Your task to perform on an android device: Search for hotels in San Diego Image 0: 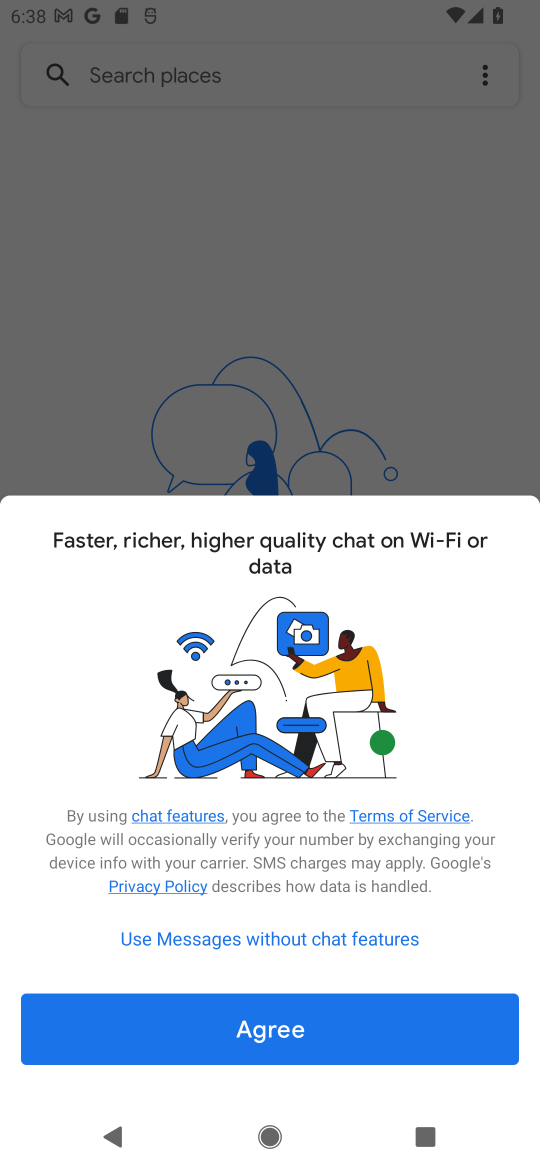
Step 0: press home button
Your task to perform on an android device: Search for hotels in San Diego Image 1: 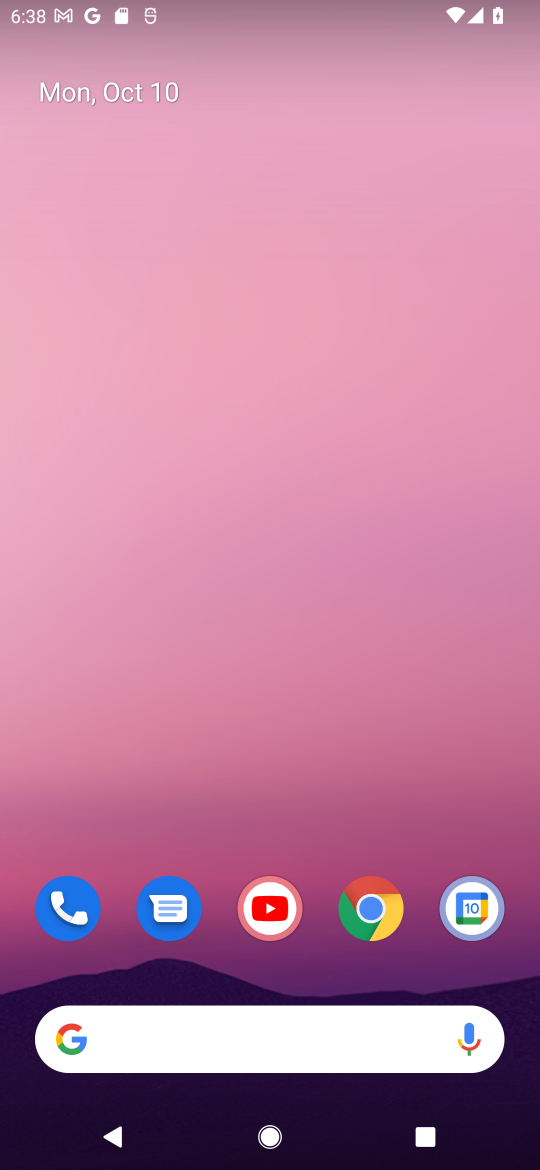
Step 1: drag from (333, 966) to (338, 178)
Your task to perform on an android device: Search for hotels in San Diego Image 2: 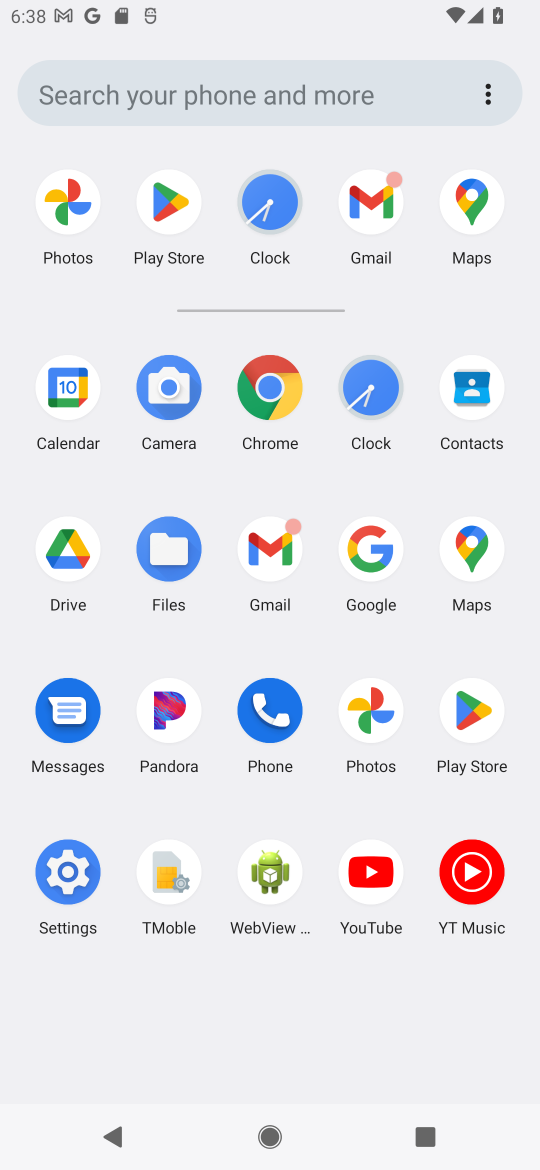
Step 2: click (269, 387)
Your task to perform on an android device: Search for hotels in San Diego Image 3: 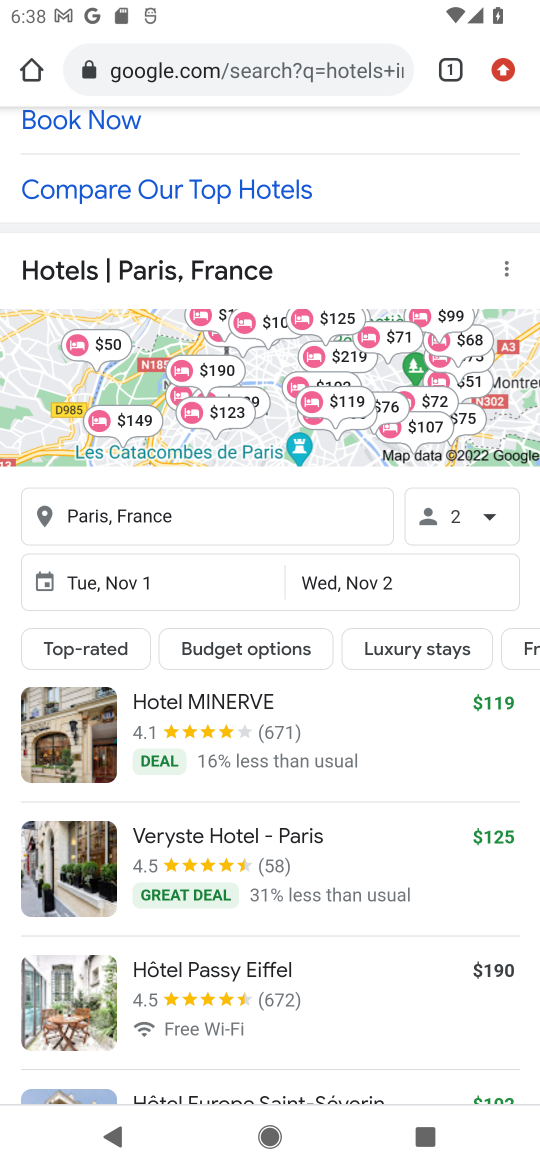
Step 3: click (238, 75)
Your task to perform on an android device: Search for hotels in San Diego Image 4: 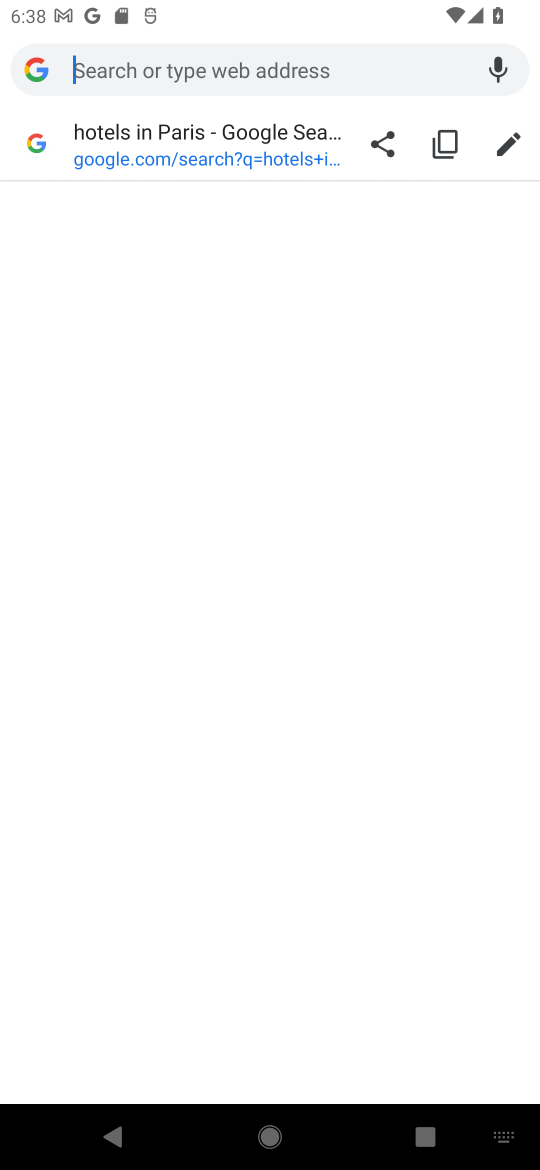
Step 4: type "hotels in San Diego"
Your task to perform on an android device: Search for hotels in San Diego Image 5: 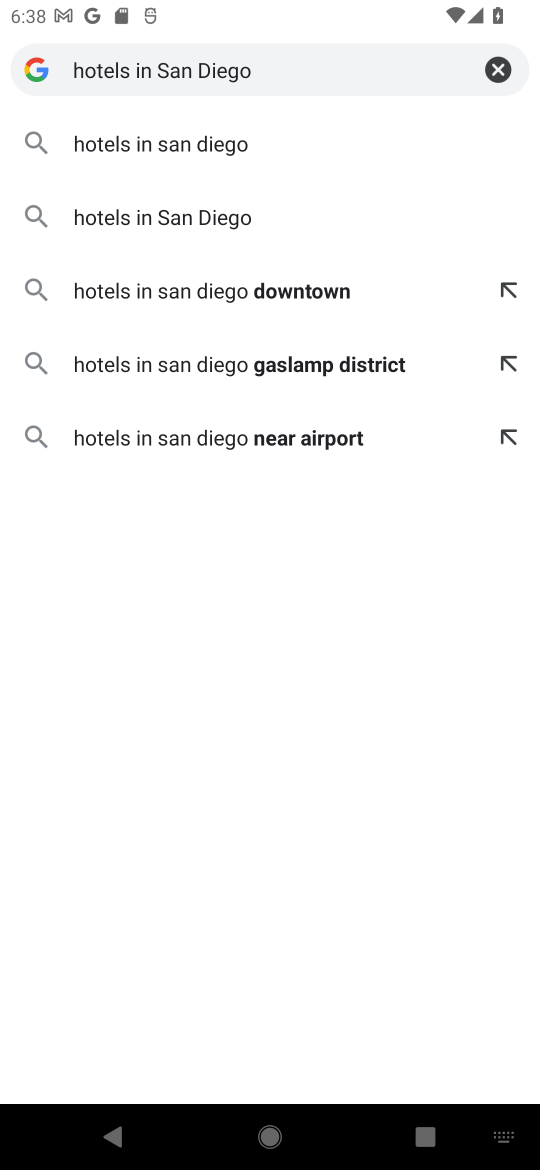
Step 5: press enter
Your task to perform on an android device: Search for hotels in San Diego Image 6: 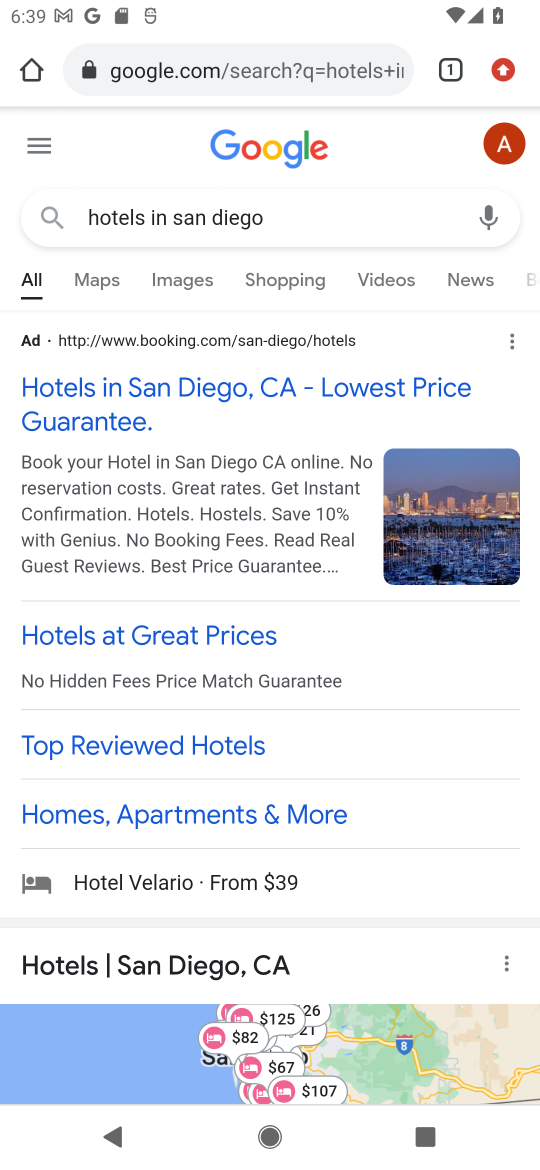
Step 6: task complete